Your task to perform on an android device: Go to wifi settings Image 0: 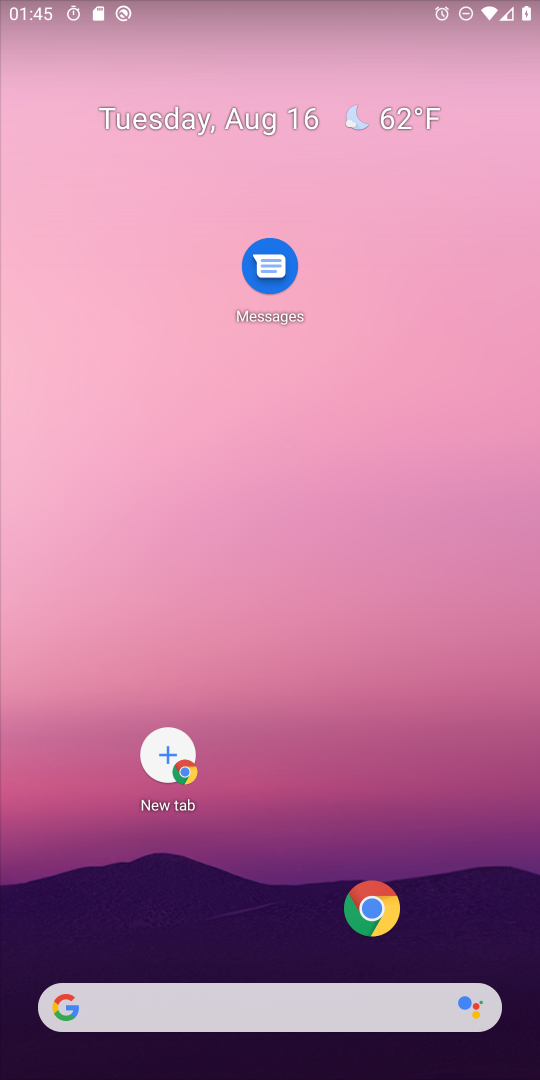
Step 0: click (519, 686)
Your task to perform on an android device: Go to wifi settings Image 1: 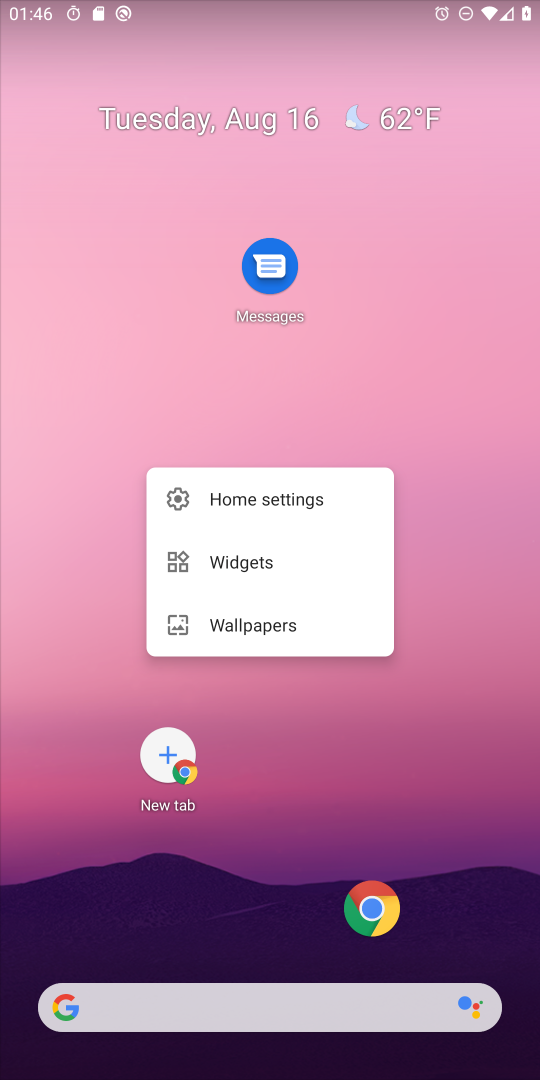
Step 1: drag from (181, 8) to (405, 893)
Your task to perform on an android device: Go to wifi settings Image 2: 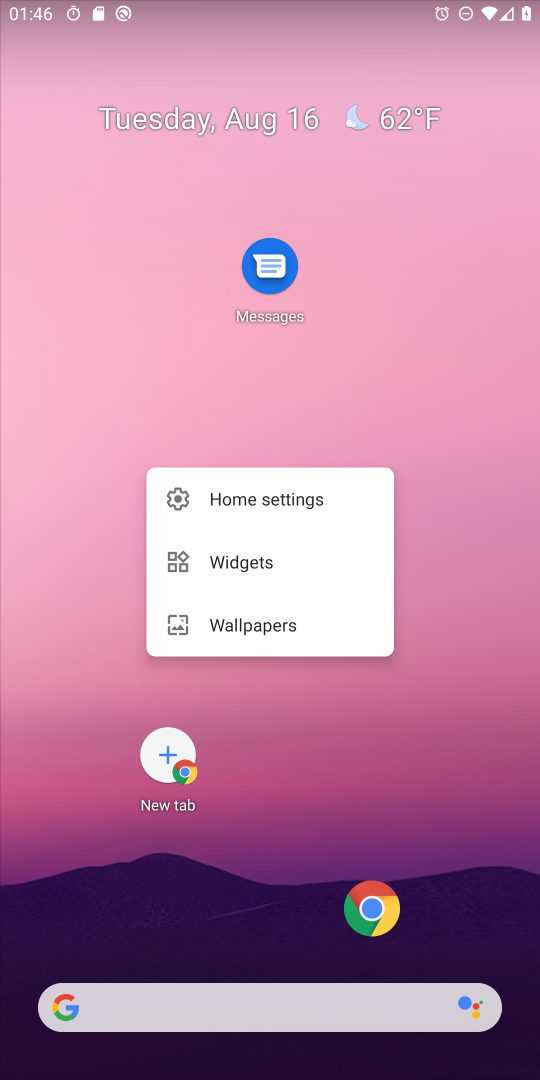
Step 2: drag from (263, 5) to (352, 648)
Your task to perform on an android device: Go to wifi settings Image 3: 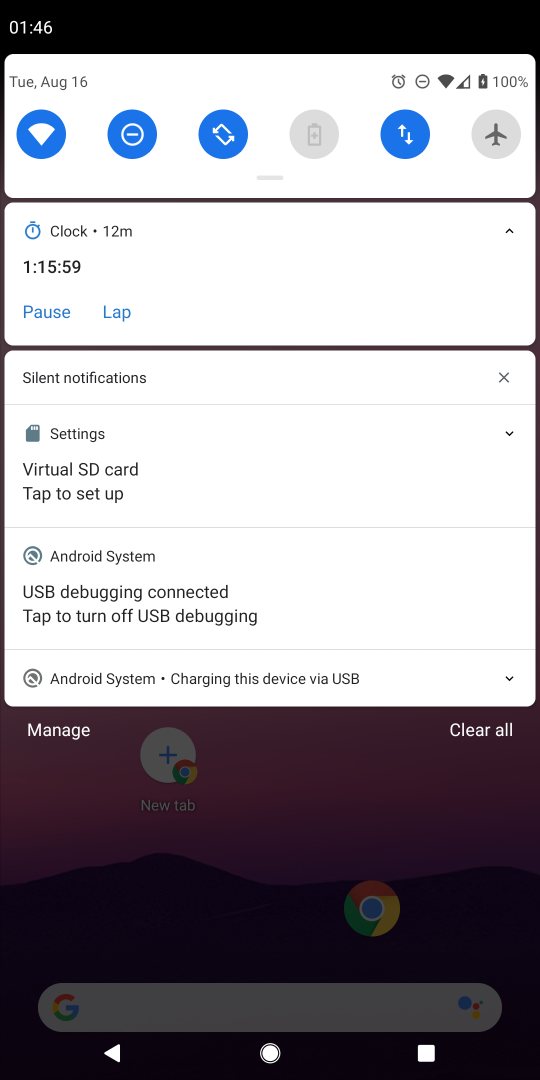
Step 3: click (45, 125)
Your task to perform on an android device: Go to wifi settings Image 4: 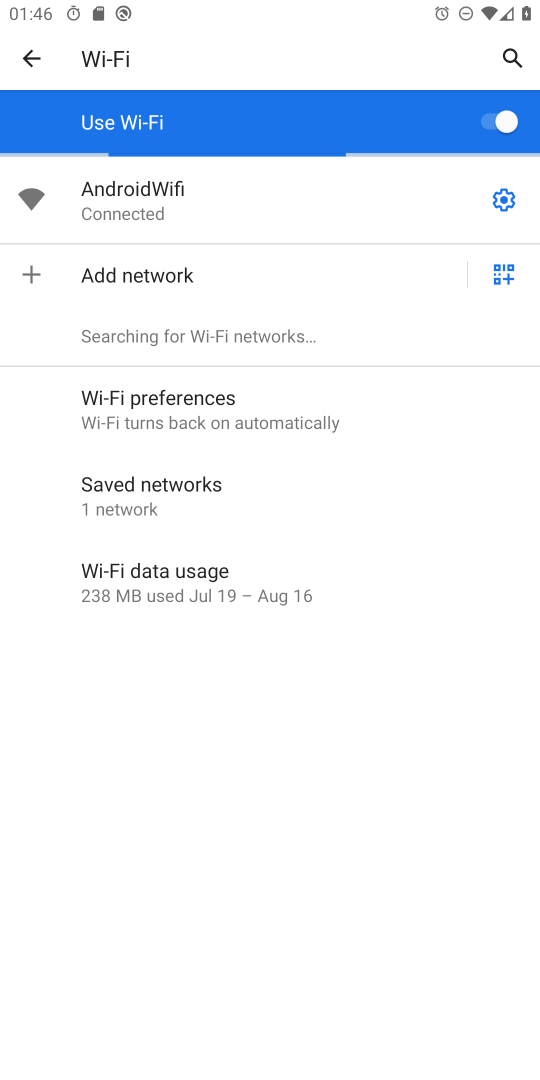
Step 4: task complete